Your task to perform on an android device: turn pop-ups on in chrome Image 0: 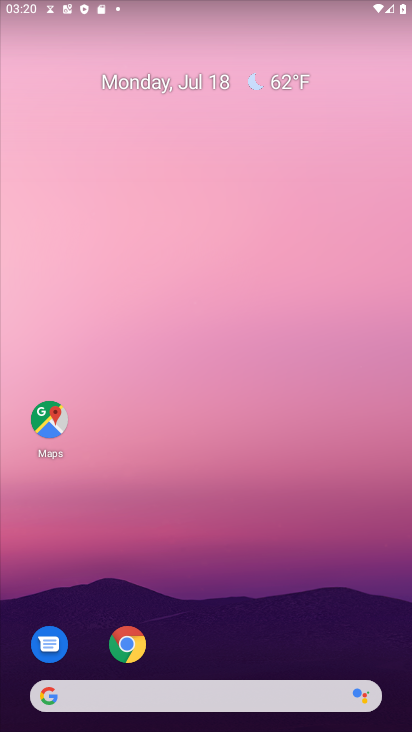
Step 0: drag from (232, 599) to (234, 31)
Your task to perform on an android device: turn pop-ups on in chrome Image 1: 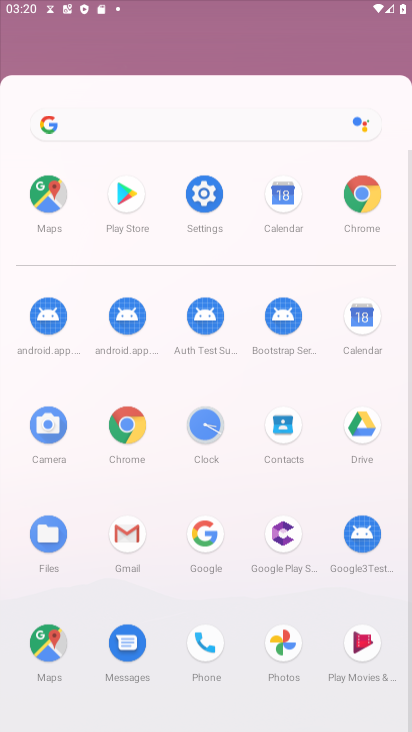
Step 1: drag from (259, 481) to (264, 64)
Your task to perform on an android device: turn pop-ups on in chrome Image 2: 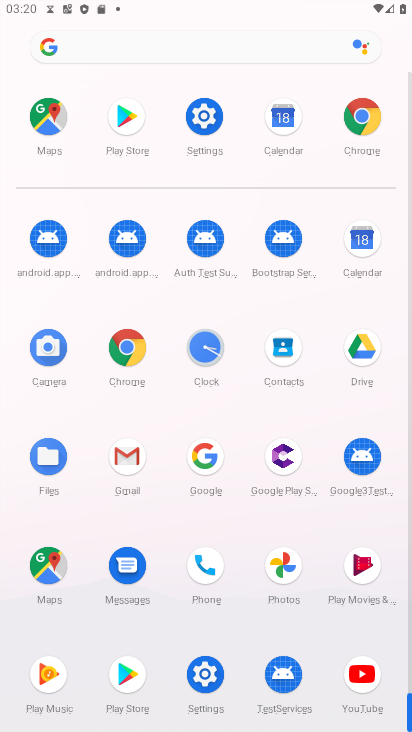
Step 2: click (358, 123)
Your task to perform on an android device: turn pop-ups on in chrome Image 3: 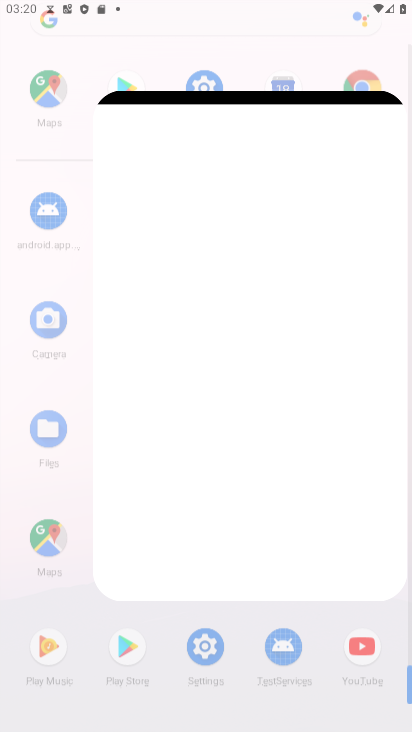
Step 3: click (362, 118)
Your task to perform on an android device: turn pop-ups on in chrome Image 4: 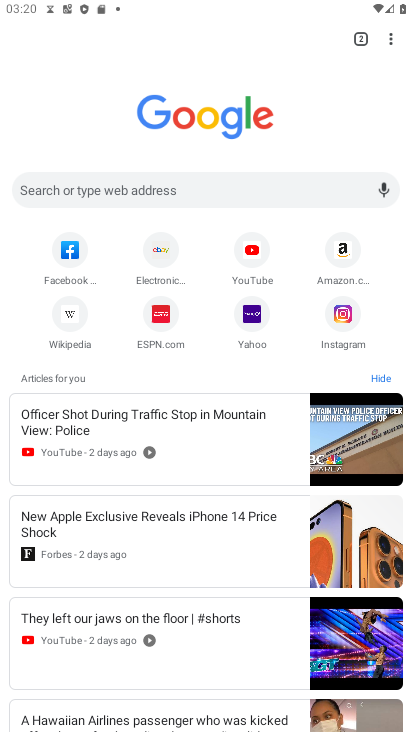
Step 4: drag from (389, 31) to (243, 329)
Your task to perform on an android device: turn pop-ups on in chrome Image 5: 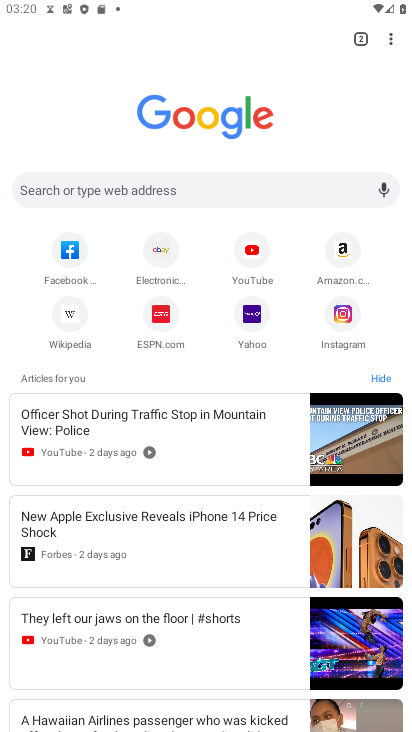
Step 5: click (243, 324)
Your task to perform on an android device: turn pop-ups on in chrome Image 6: 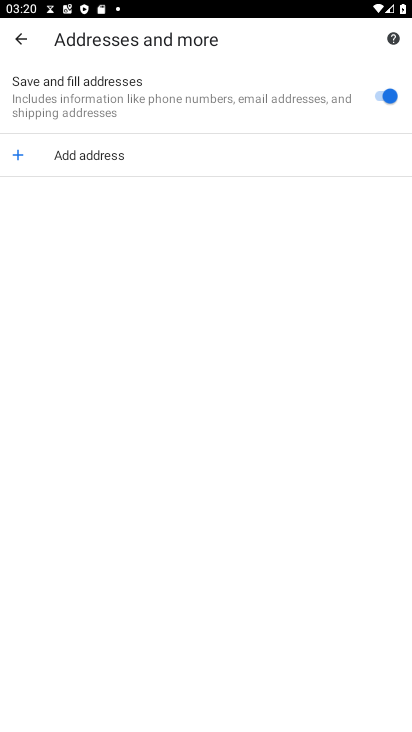
Step 6: click (22, 36)
Your task to perform on an android device: turn pop-ups on in chrome Image 7: 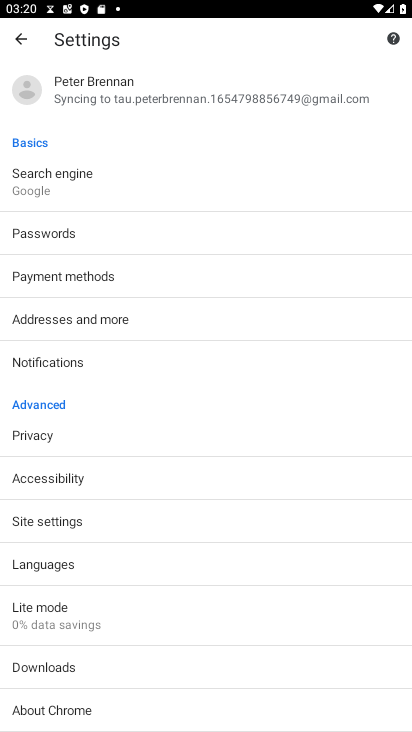
Step 7: drag from (152, 465) to (160, 178)
Your task to perform on an android device: turn pop-ups on in chrome Image 8: 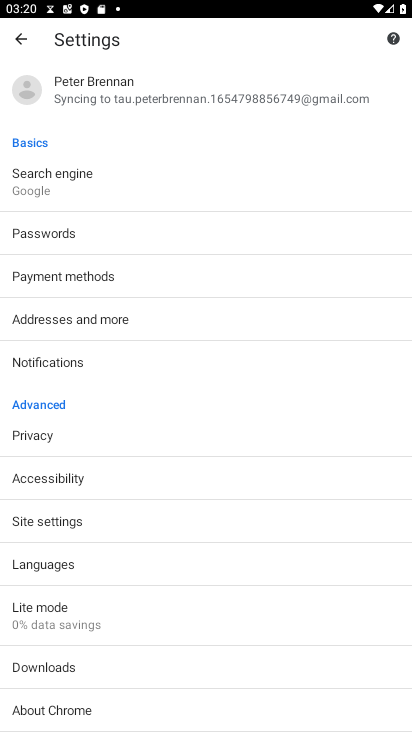
Step 8: drag from (141, 432) to (173, 317)
Your task to perform on an android device: turn pop-ups on in chrome Image 9: 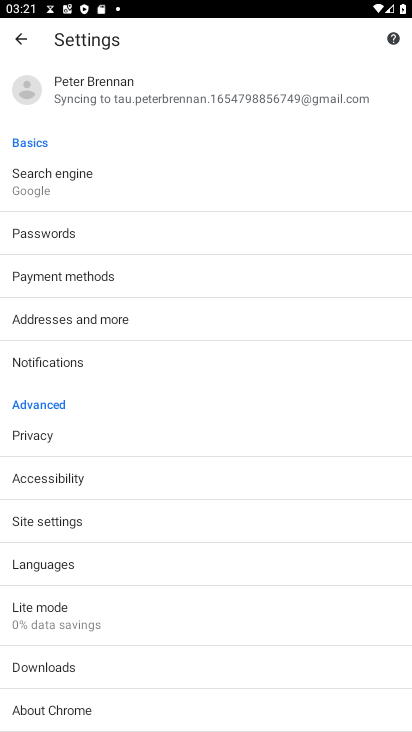
Step 9: click (33, 531)
Your task to perform on an android device: turn pop-ups on in chrome Image 10: 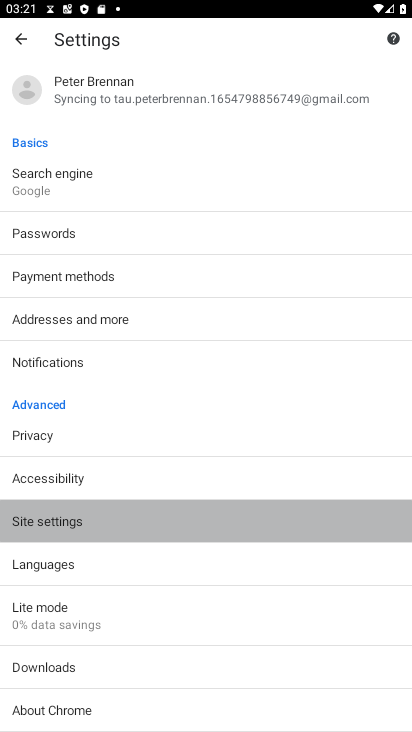
Step 10: click (48, 513)
Your task to perform on an android device: turn pop-ups on in chrome Image 11: 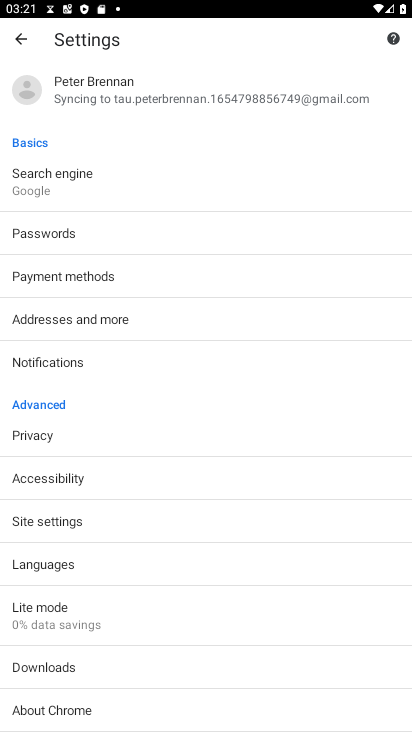
Step 11: click (48, 513)
Your task to perform on an android device: turn pop-ups on in chrome Image 12: 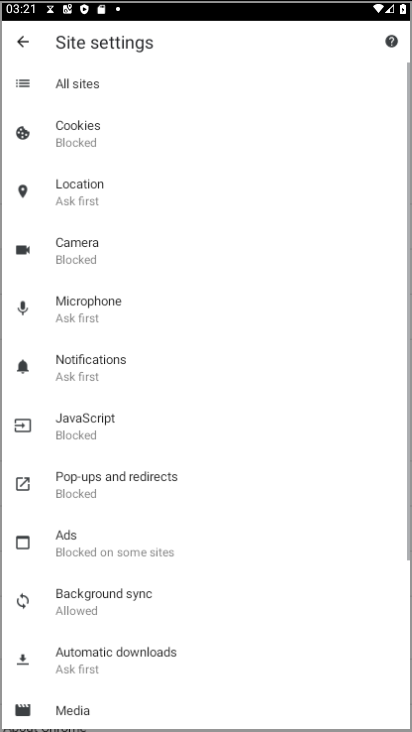
Step 12: click (48, 505)
Your task to perform on an android device: turn pop-ups on in chrome Image 13: 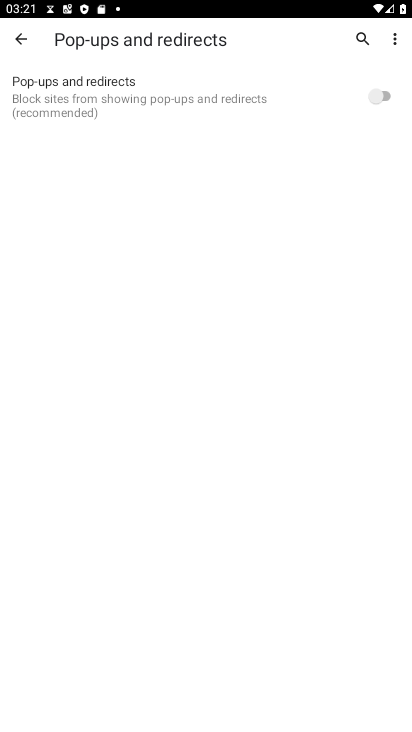
Step 13: click (365, 98)
Your task to perform on an android device: turn pop-ups on in chrome Image 14: 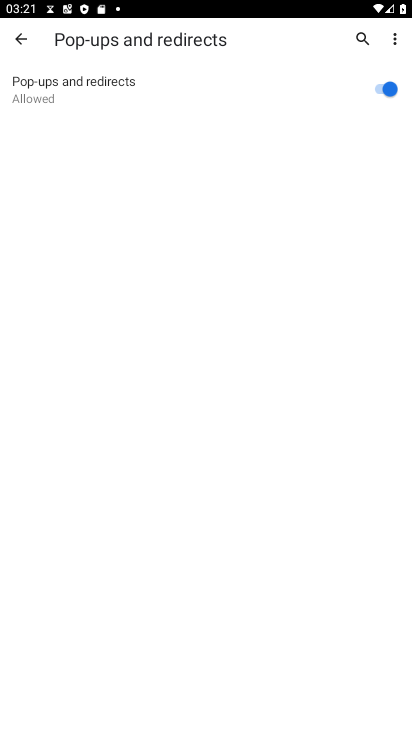
Step 14: task complete